Your task to perform on an android device: turn on the 12-hour format for clock Image 0: 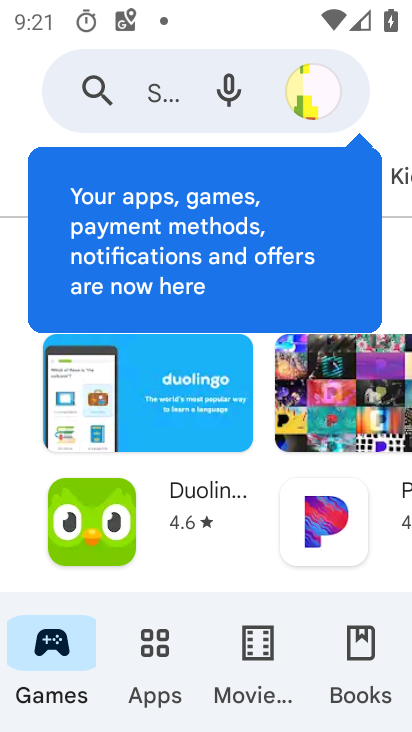
Step 0: press home button
Your task to perform on an android device: turn on the 12-hour format for clock Image 1: 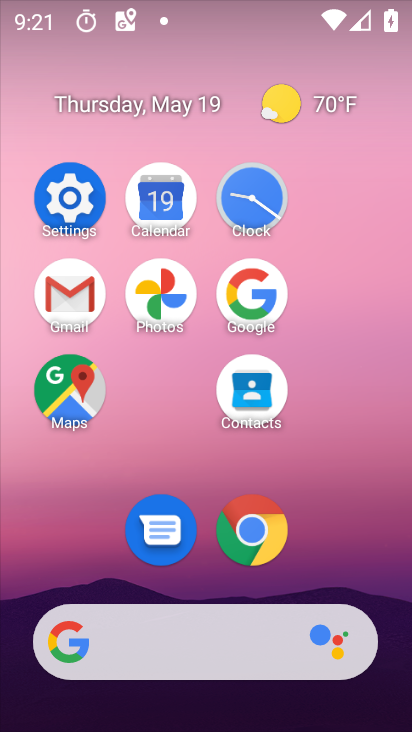
Step 1: click (264, 204)
Your task to perform on an android device: turn on the 12-hour format for clock Image 2: 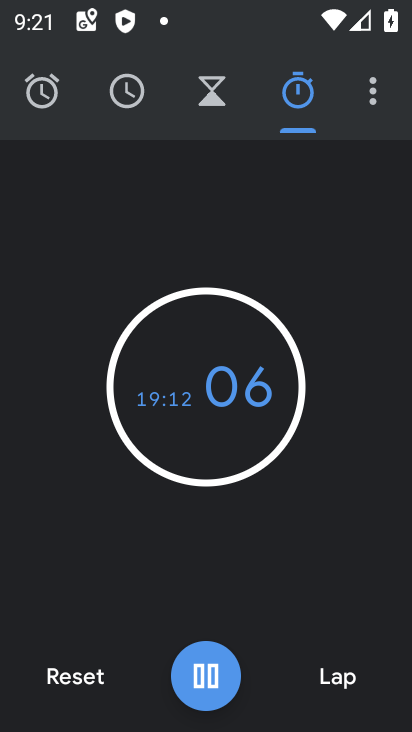
Step 2: click (381, 93)
Your task to perform on an android device: turn on the 12-hour format for clock Image 3: 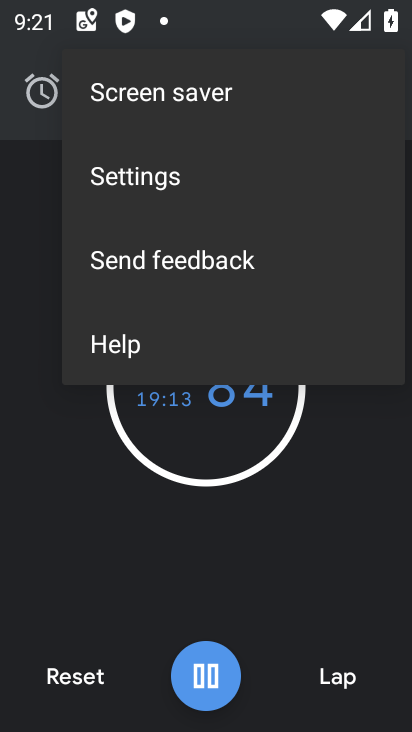
Step 3: click (214, 179)
Your task to perform on an android device: turn on the 12-hour format for clock Image 4: 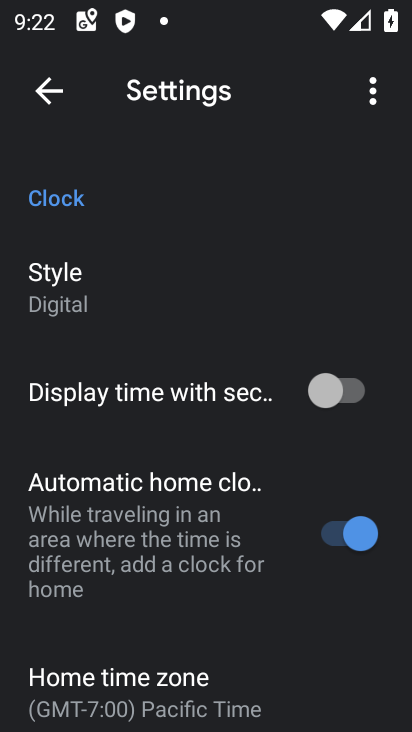
Step 4: drag from (204, 609) to (172, 176)
Your task to perform on an android device: turn on the 12-hour format for clock Image 5: 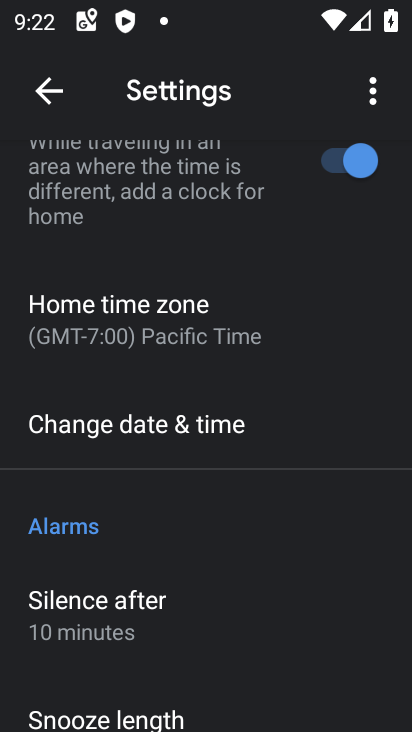
Step 5: drag from (218, 600) to (231, 204)
Your task to perform on an android device: turn on the 12-hour format for clock Image 6: 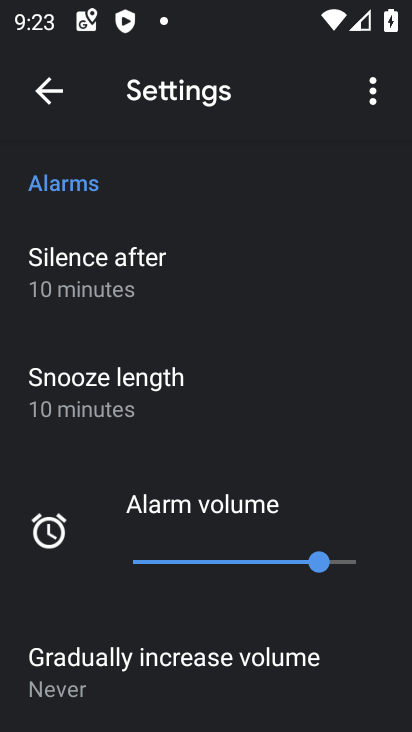
Step 6: drag from (257, 335) to (231, 616)
Your task to perform on an android device: turn on the 12-hour format for clock Image 7: 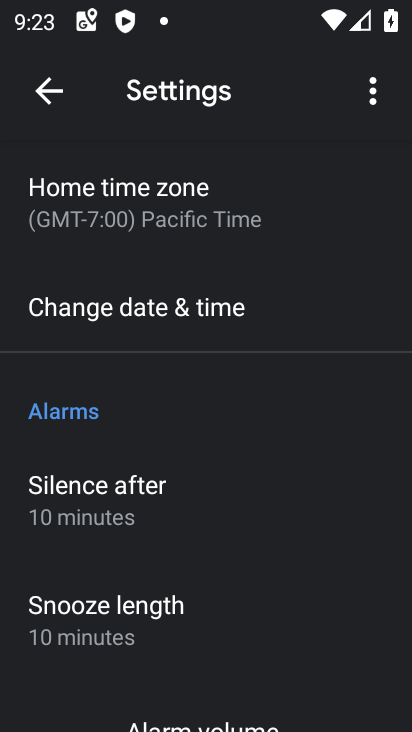
Step 7: click (169, 305)
Your task to perform on an android device: turn on the 12-hour format for clock Image 8: 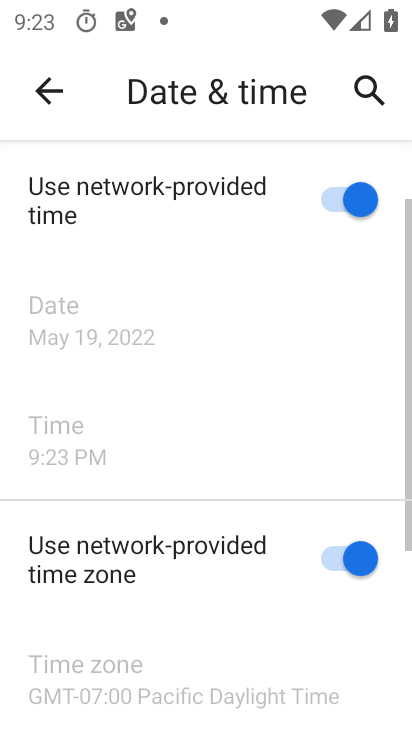
Step 8: task complete